Your task to perform on an android device: open a new tab in the chrome app Image 0: 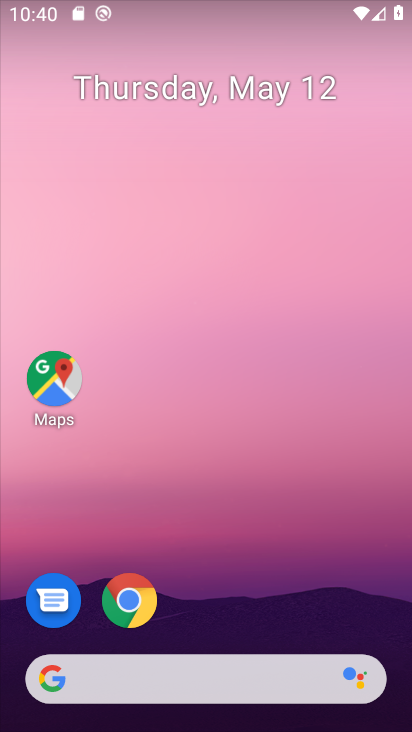
Step 0: click (135, 620)
Your task to perform on an android device: open a new tab in the chrome app Image 1: 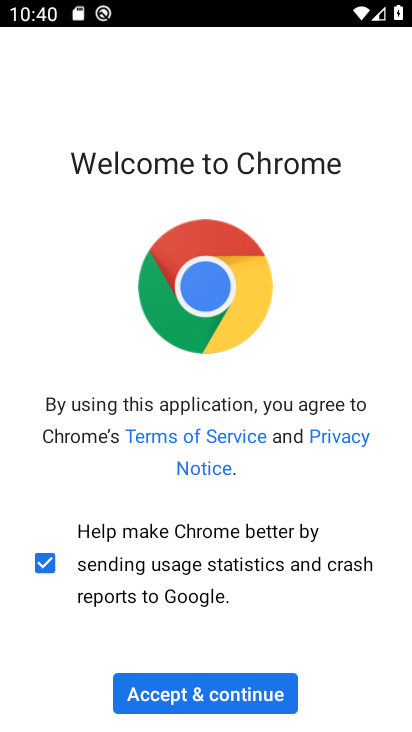
Step 1: click (167, 691)
Your task to perform on an android device: open a new tab in the chrome app Image 2: 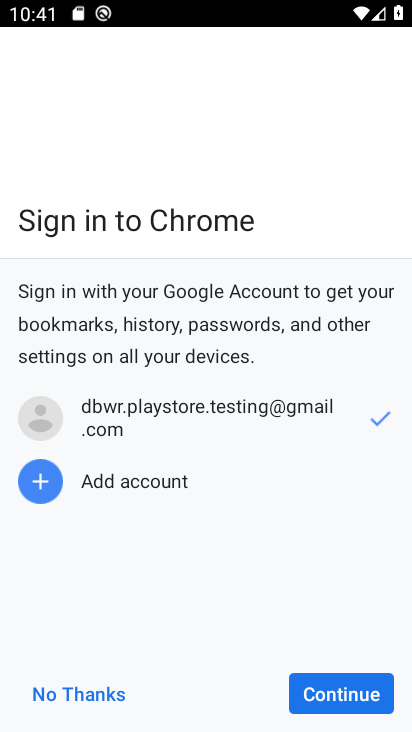
Step 2: click (328, 687)
Your task to perform on an android device: open a new tab in the chrome app Image 3: 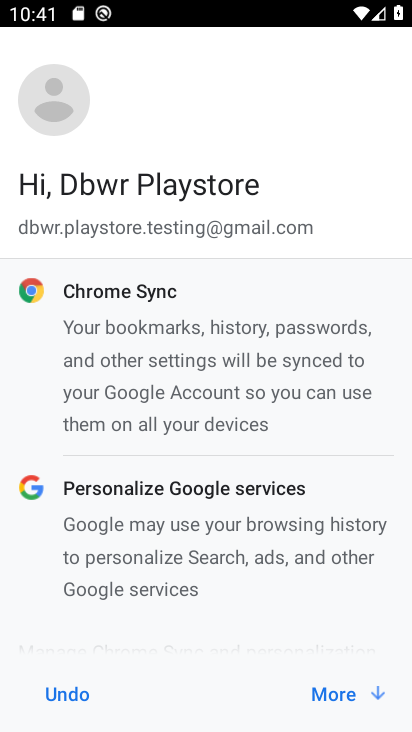
Step 3: click (369, 695)
Your task to perform on an android device: open a new tab in the chrome app Image 4: 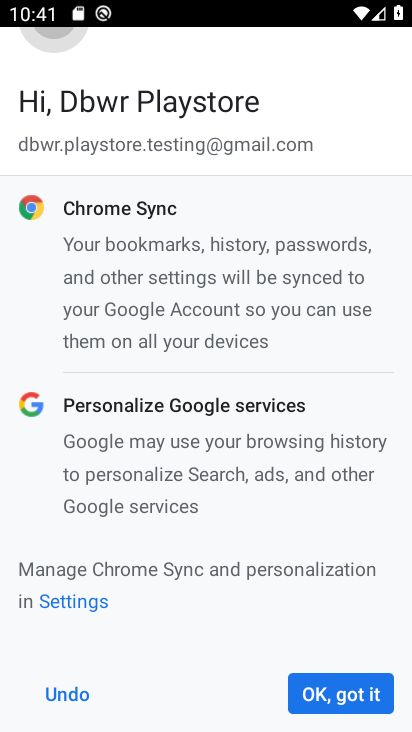
Step 4: click (318, 697)
Your task to perform on an android device: open a new tab in the chrome app Image 5: 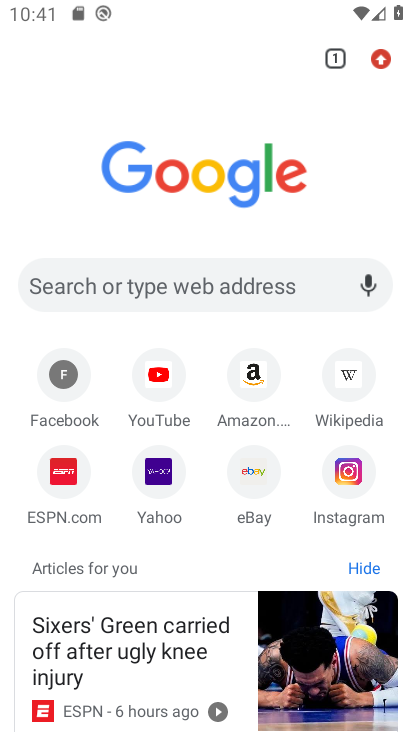
Step 5: drag from (260, 651) to (250, 459)
Your task to perform on an android device: open a new tab in the chrome app Image 6: 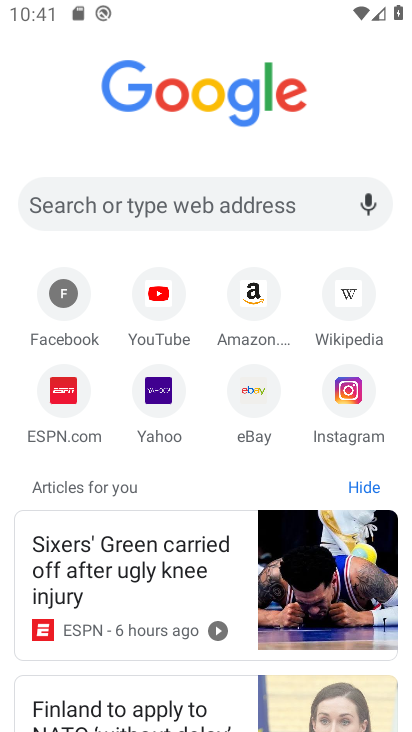
Step 6: click (250, 437)
Your task to perform on an android device: open a new tab in the chrome app Image 7: 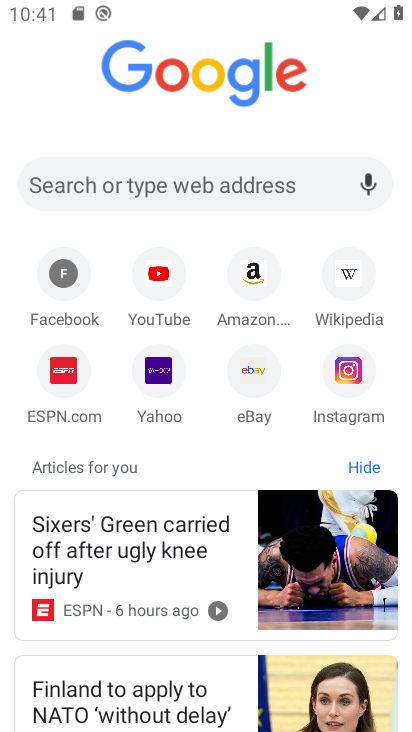
Step 7: drag from (378, 80) to (357, 283)
Your task to perform on an android device: open a new tab in the chrome app Image 8: 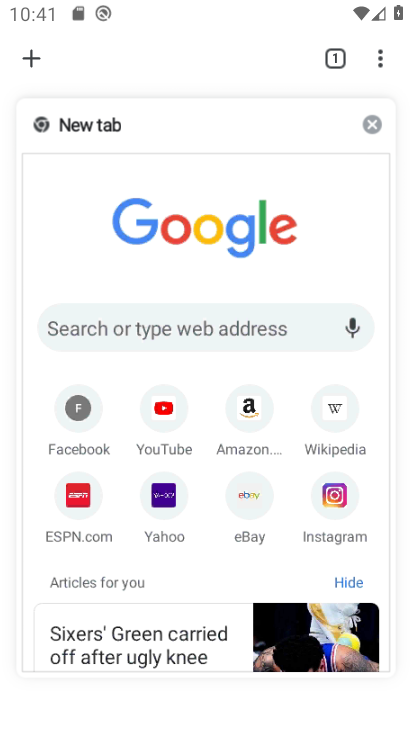
Step 8: click (380, 64)
Your task to perform on an android device: open a new tab in the chrome app Image 9: 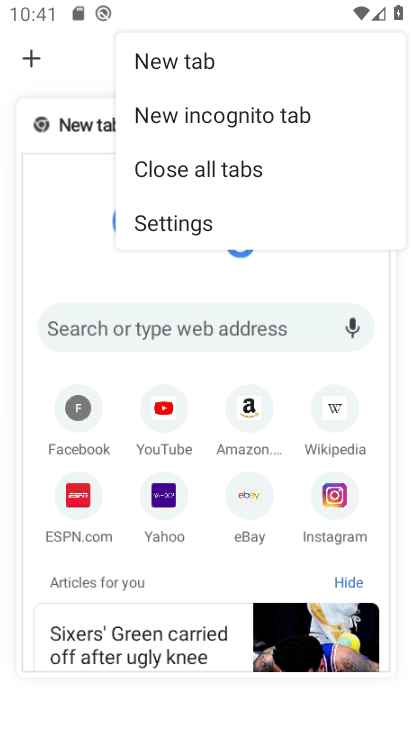
Step 9: click (181, 59)
Your task to perform on an android device: open a new tab in the chrome app Image 10: 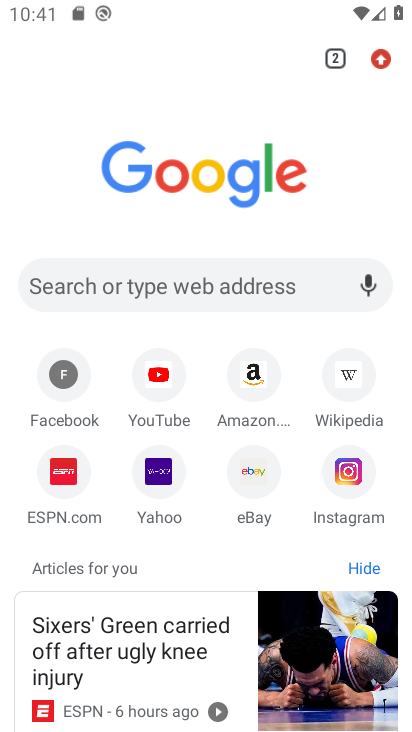
Step 10: task complete